Your task to perform on an android device: turn on bluetooth scan Image 0: 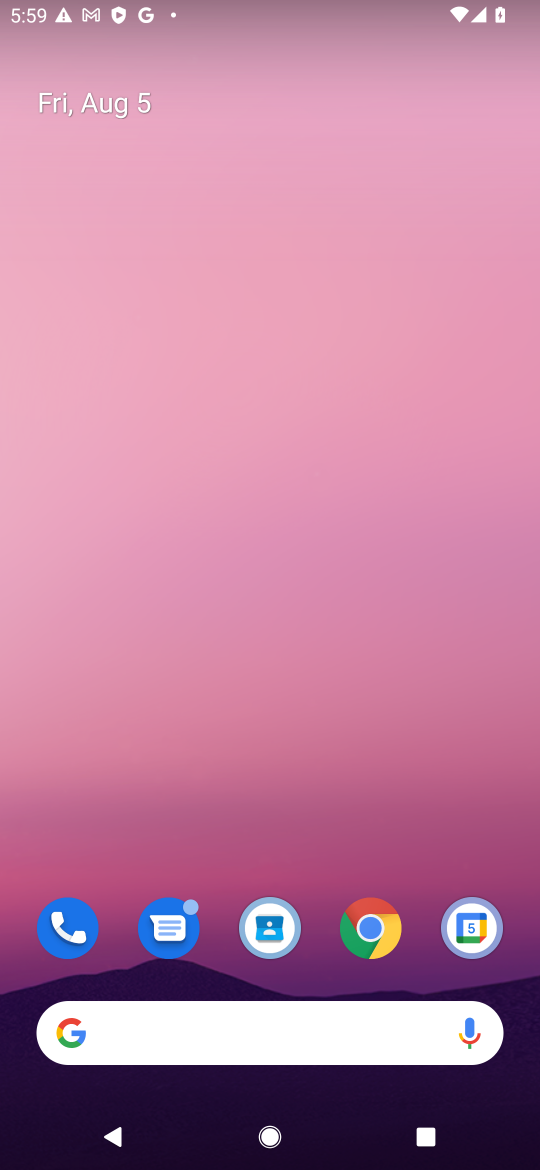
Step 0: drag from (310, 993) to (408, 25)
Your task to perform on an android device: turn on bluetooth scan Image 1: 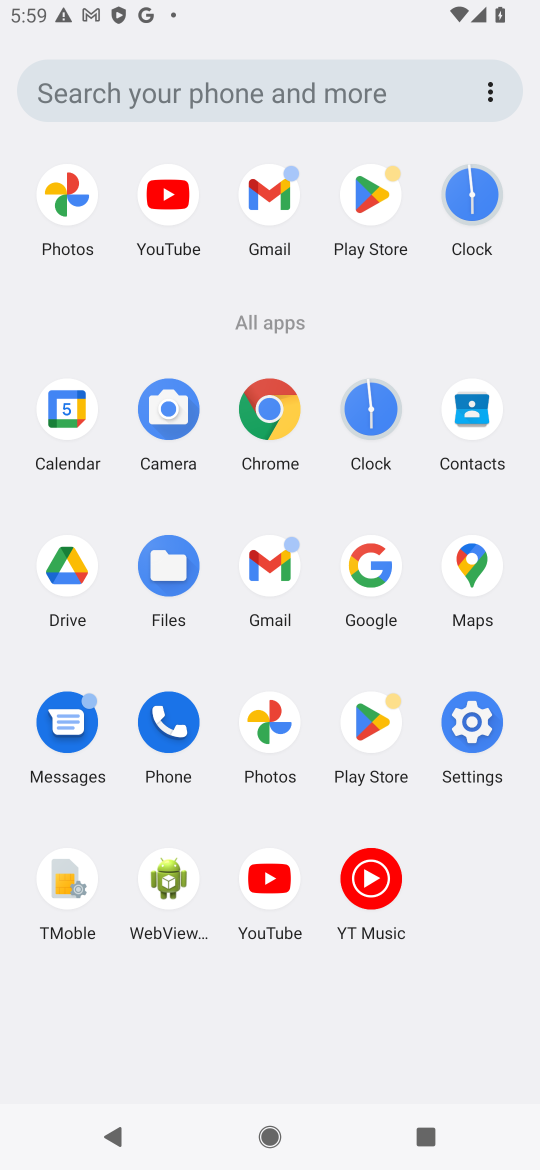
Step 1: click (466, 739)
Your task to perform on an android device: turn on bluetooth scan Image 2: 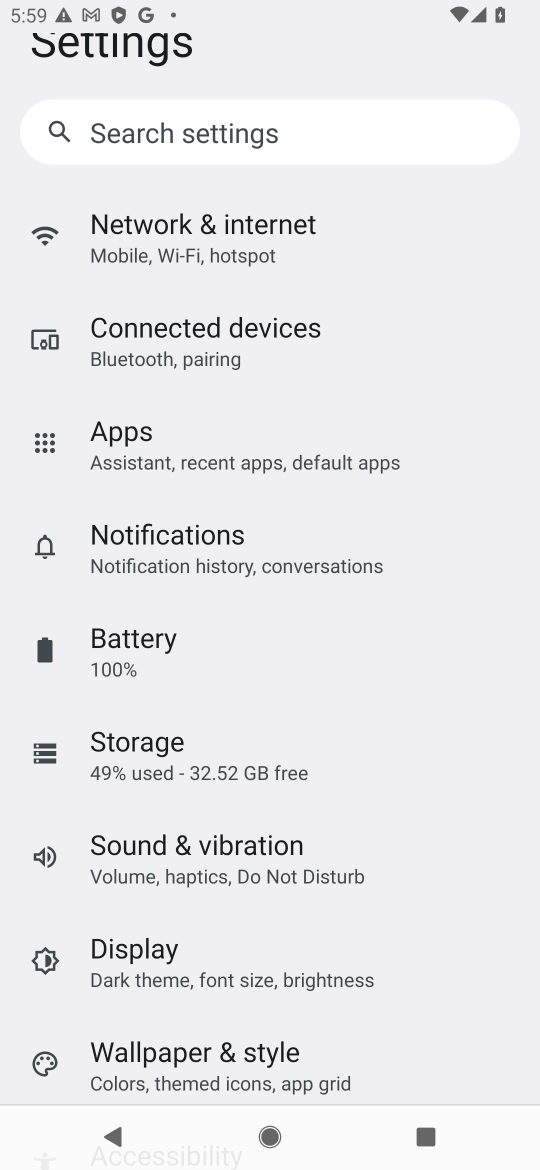
Step 2: drag from (341, 1030) to (213, 314)
Your task to perform on an android device: turn on bluetooth scan Image 3: 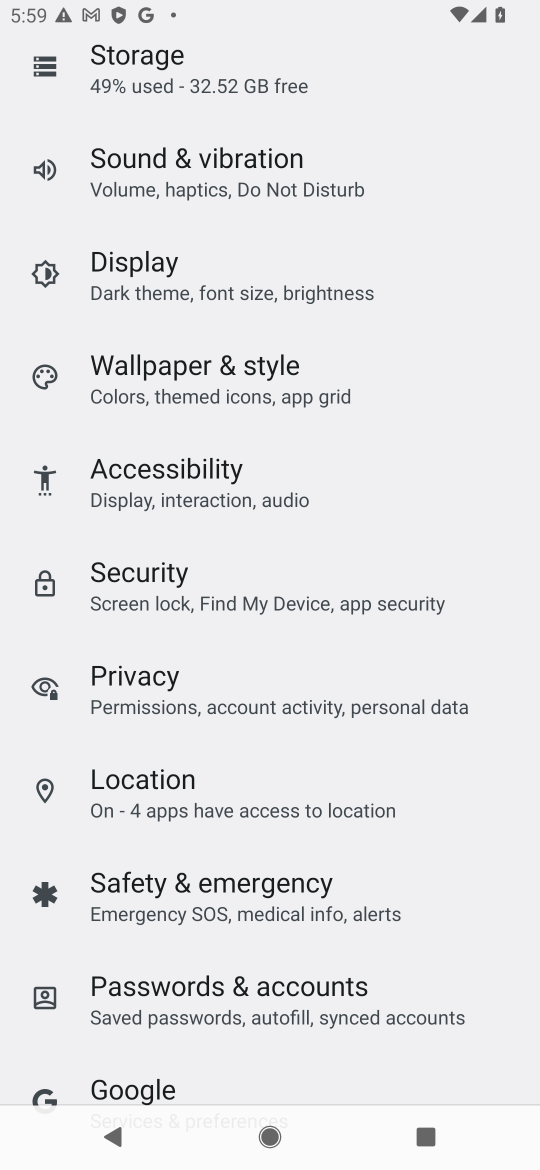
Step 3: click (127, 801)
Your task to perform on an android device: turn on bluetooth scan Image 4: 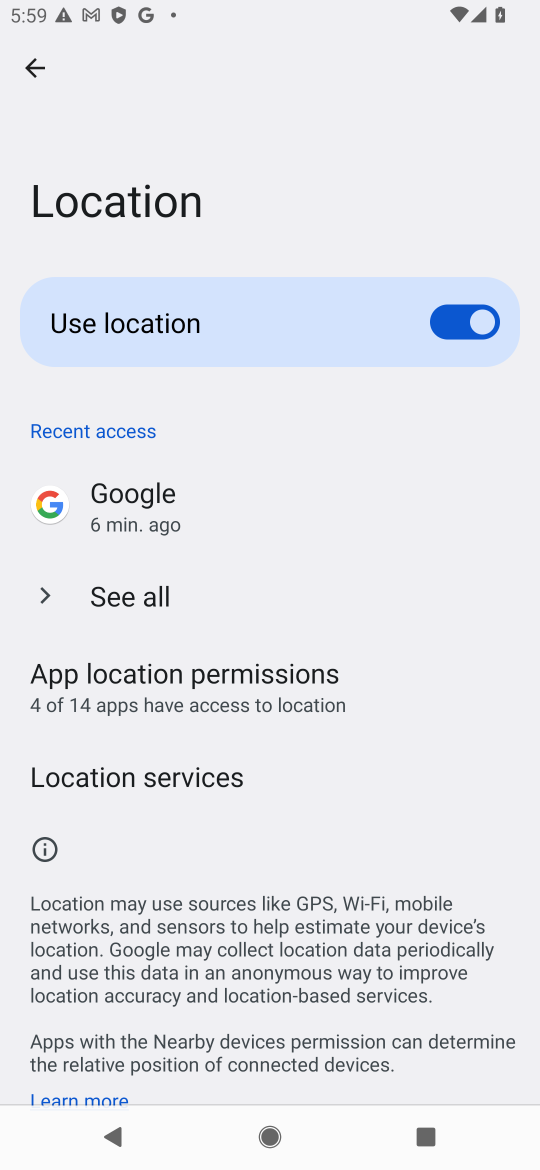
Step 4: click (128, 785)
Your task to perform on an android device: turn on bluetooth scan Image 5: 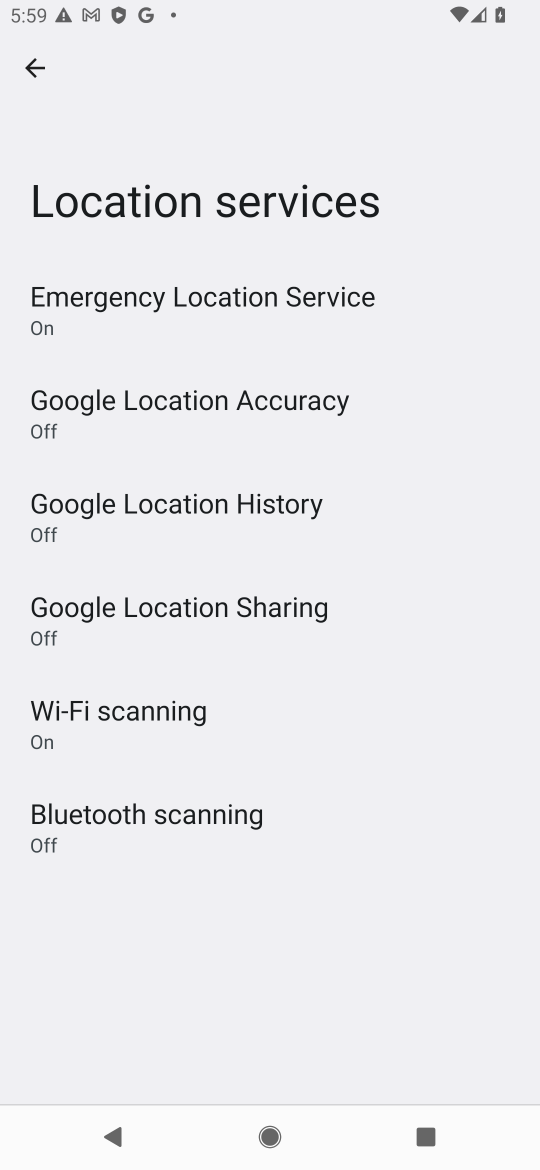
Step 5: click (152, 831)
Your task to perform on an android device: turn on bluetooth scan Image 6: 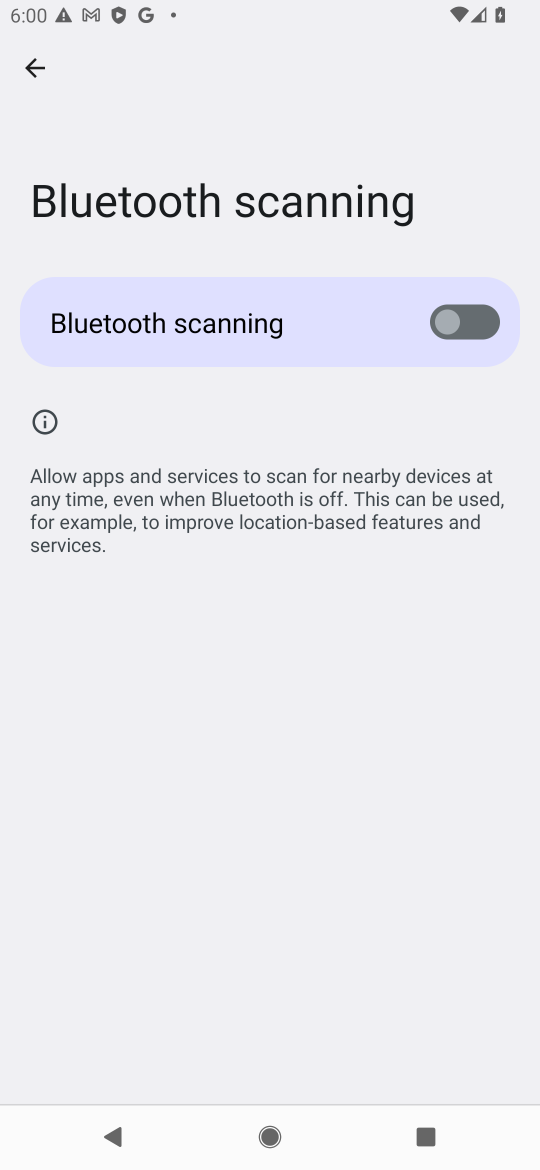
Step 6: click (469, 311)
Your task to perform on an android device: turn on bluetooth scan Image 7: 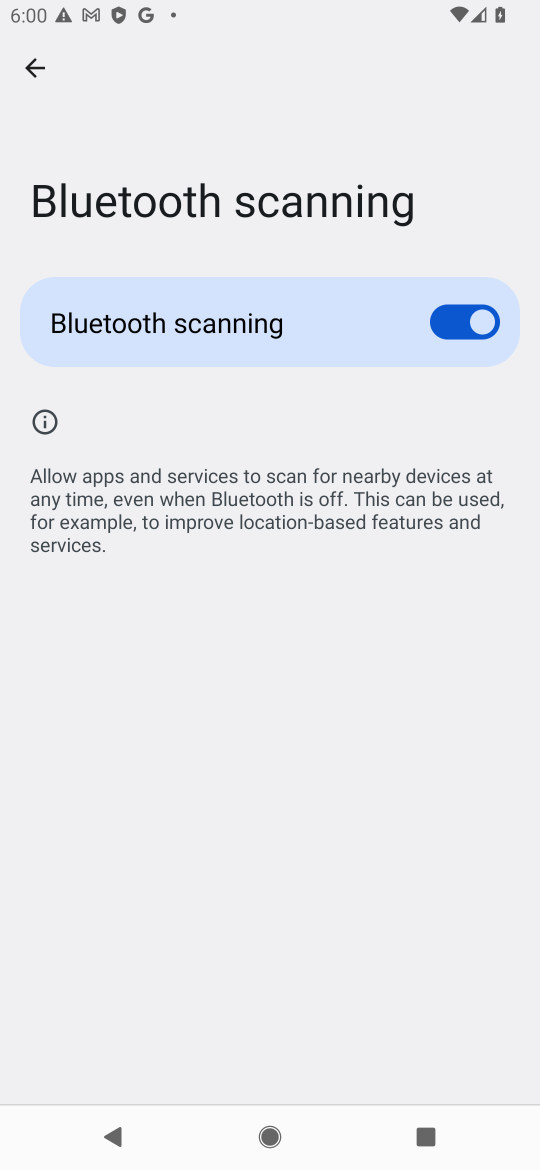
Step 7: task complete